Your task to perform on an android device: Open battery settings Image 0: 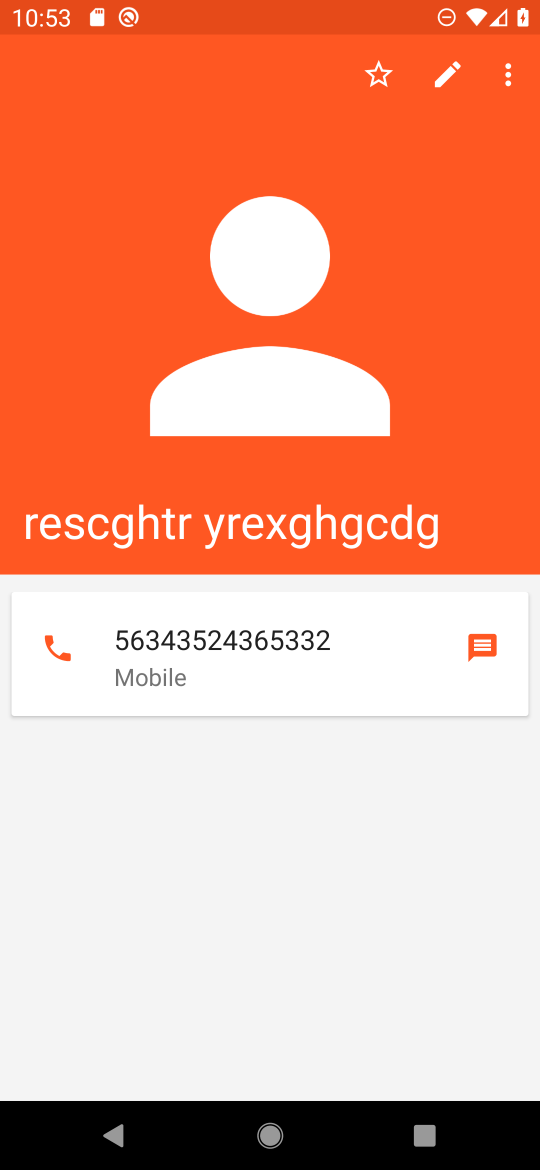
Step 0: press home button
Your task to perform on an android device: Open battery settings Image 1: 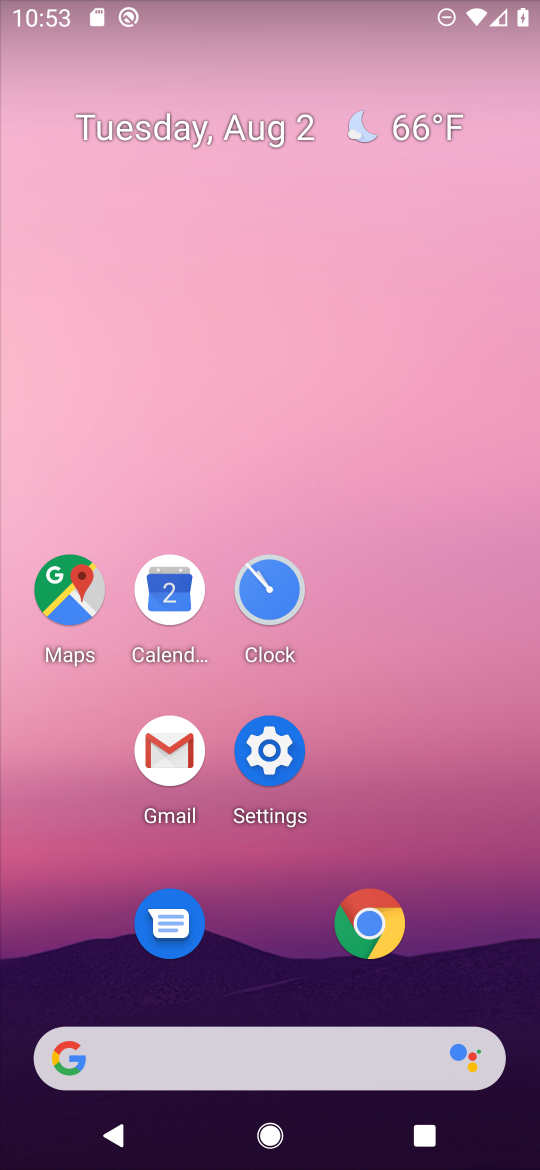
Step 1: click (279, 738)
Your task to perform on an android device: Open battery settings Image 2: 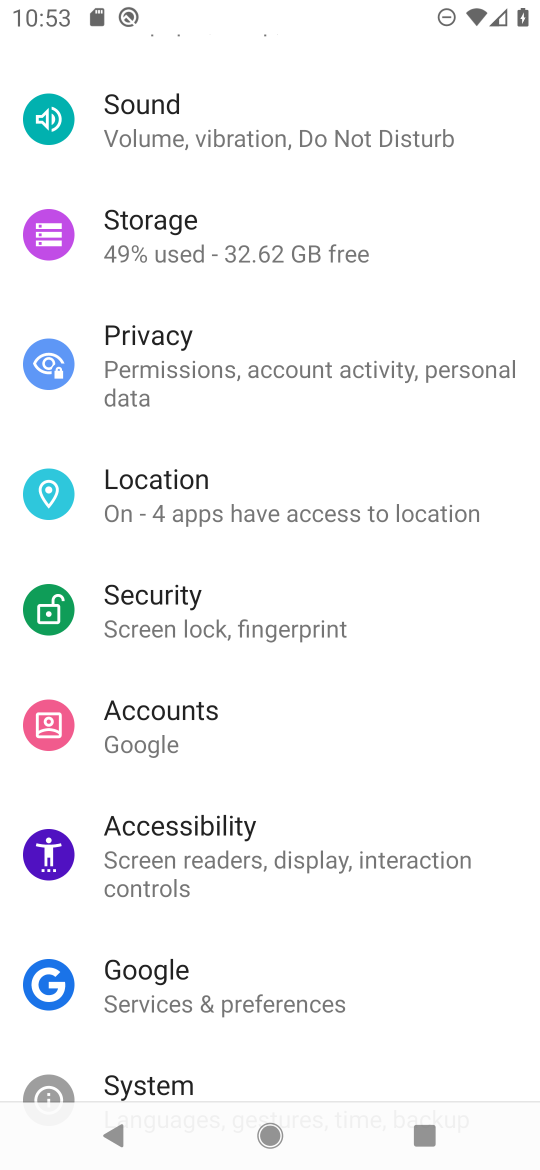
Step 2: drag from (354, 236) to (335, 715)
Your task to perform on an android device: Open battery settings Image 3: 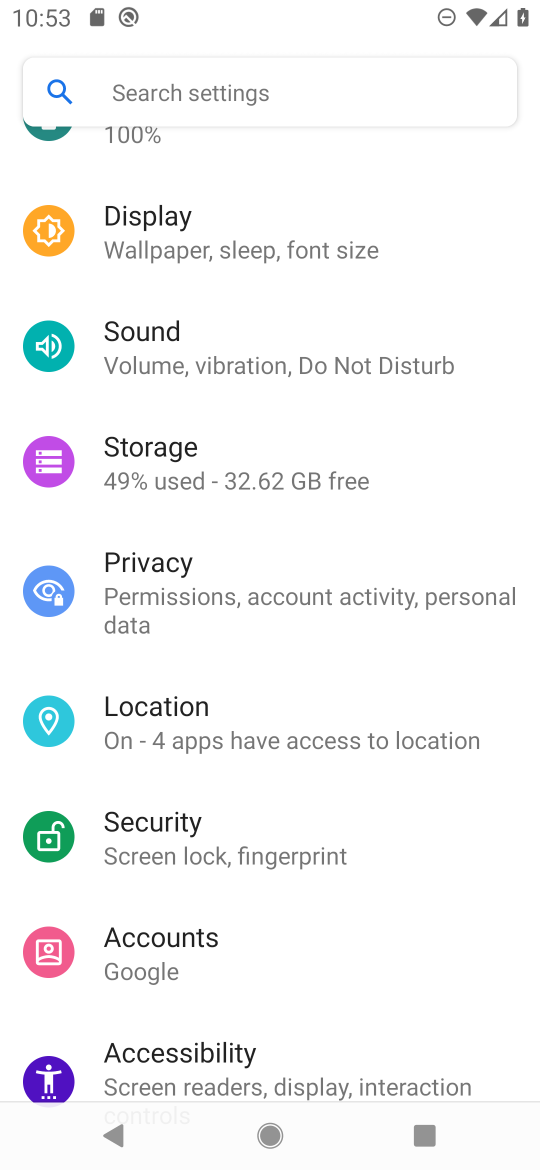
Step 3: drag from (308, 313) to (313, 714)
Your task to perform on an android device: Open battery settings Image 4: 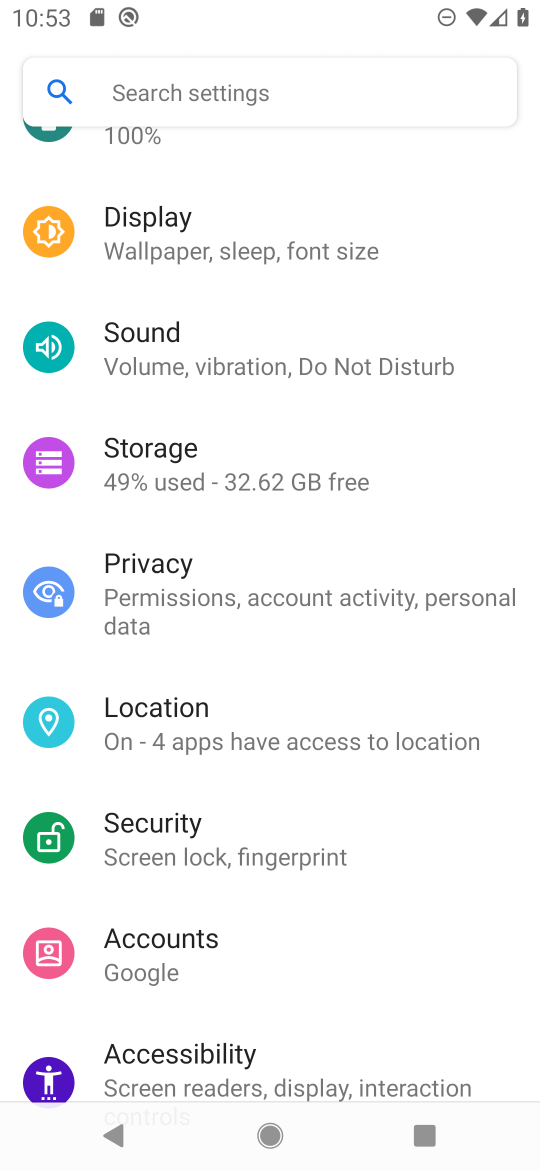
Step 4: drag from (283, 175) to (257, 753)
Your task to perform on an android device: Open battery settings Image 5: 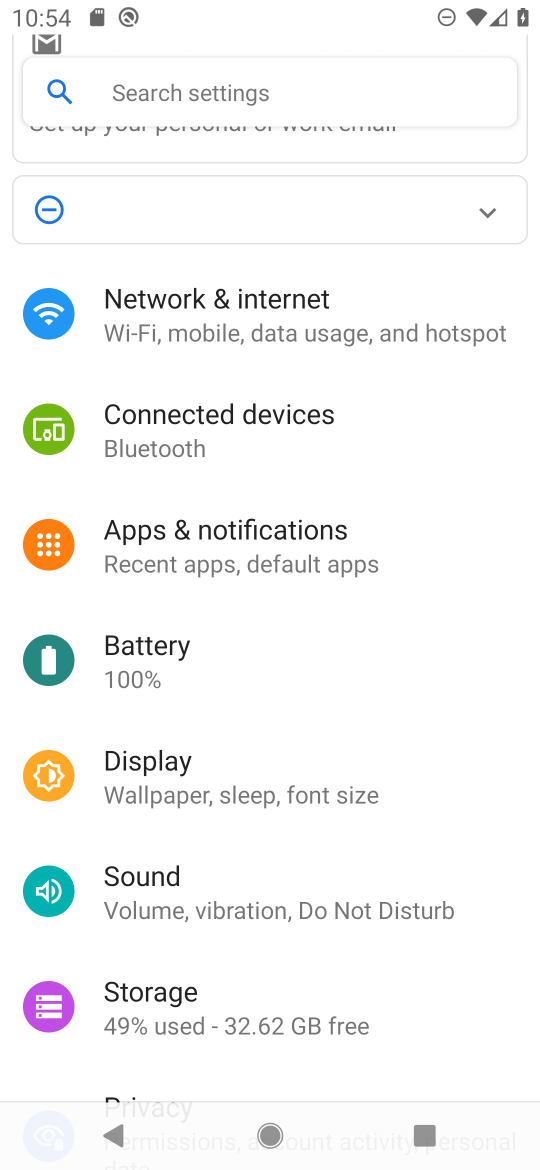
Step 5: click (130, 334)
Your task to perform on an android device: Open battery settings Image 6: 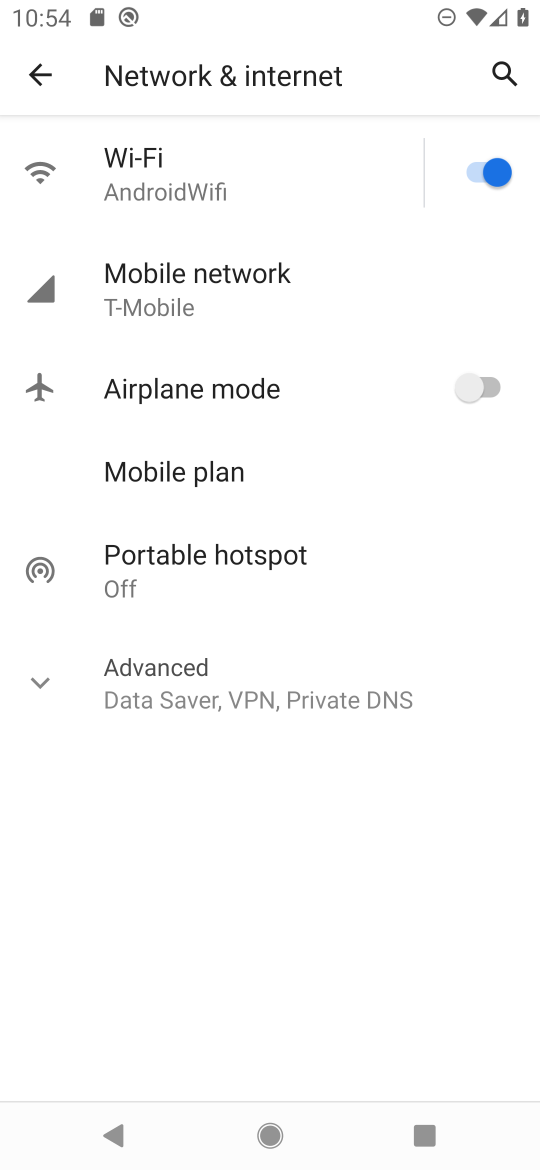
Step 6: task complete